Your task to perform on an android device: Open notification settings Image 0: 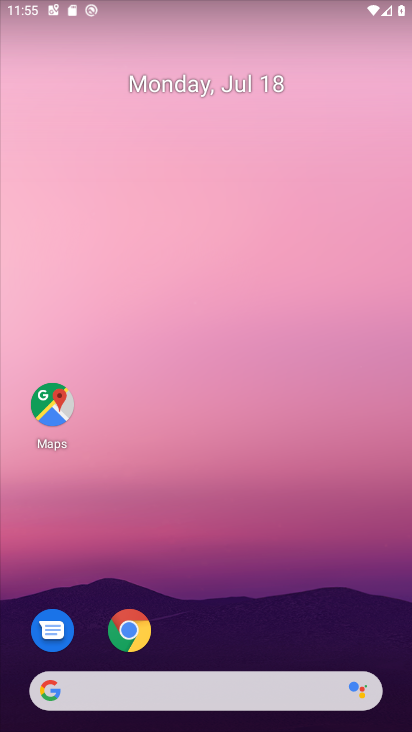
Step 0: drag from (253, 649) to (276, 124)
Your task to perform on an android device: Open notification settings Image 1: 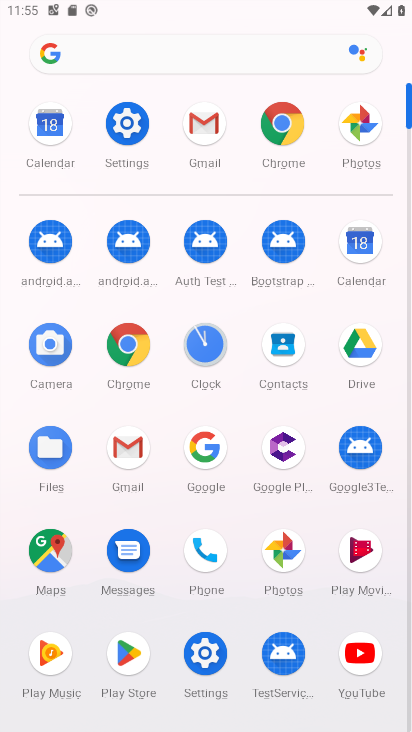
Step 1: click (211, 660)
Your task to perform on an android device: Open notification settings Image 2: 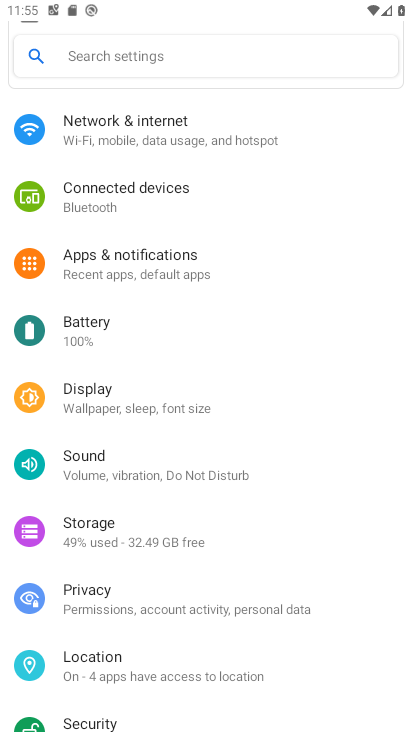
Step 2: click (140, 278)
Your task to perform on an android device: Open notification settings Image 3: 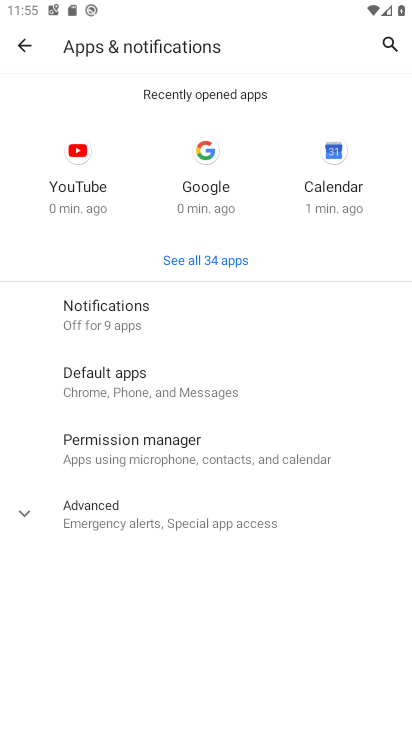
Step 3: click (129, 327)
Your task to perform on an android device: Open notification settings Image 4: 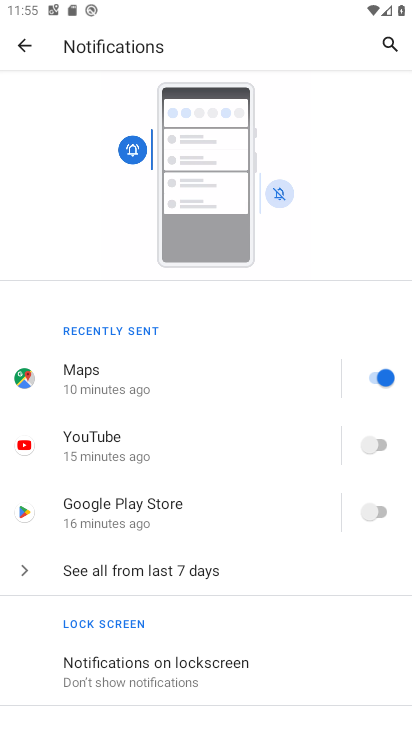
Step 4: task complete